Your task to perform on an android device: Show me the alarms in the clock app Image 0: 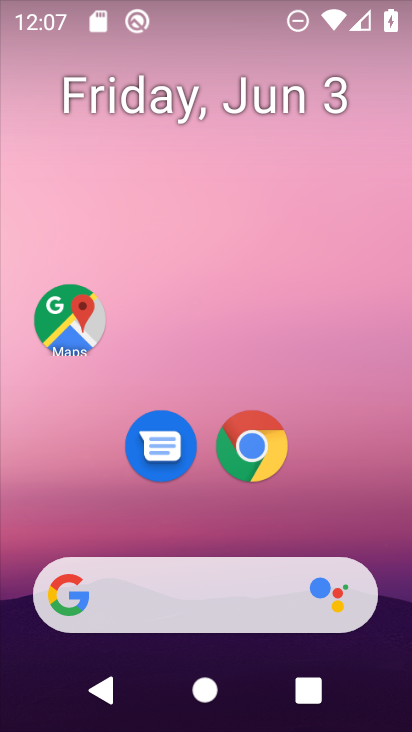
Step 0: click (309, 220)
Your task to perform on an android device: Show me the alarms in the clock app Image 1: 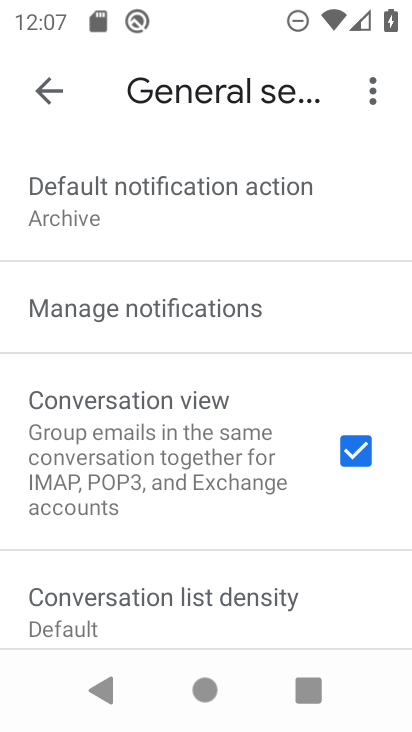
Step 1: click (36, 78)
Your task to perform on an android device: Show me the alarms in the clock app Image 2: 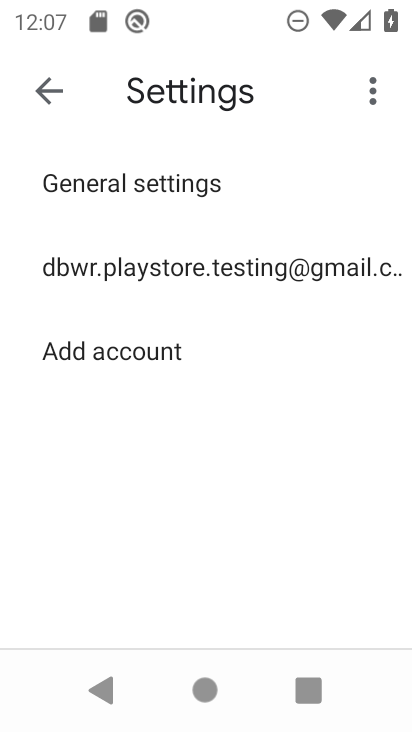
Step 2: click (51, 93)
Your task to perform on an android device: Show me the alarms in the clock app Image 3: 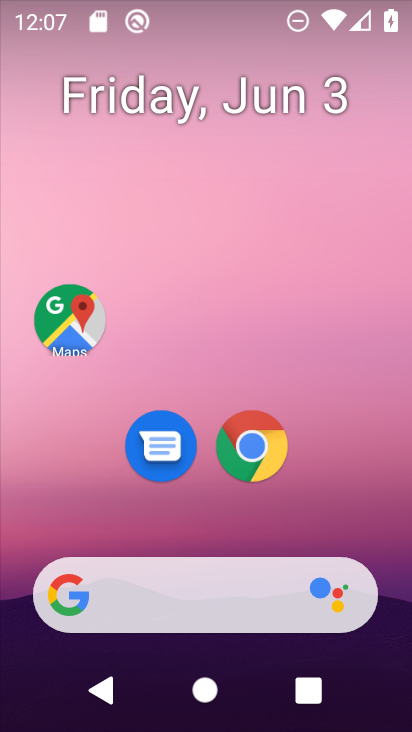
Step 3: drag from (274, 540) to (298, 106)
Your task to perform on an android device: Show me the alarms in the clock app Image 4: 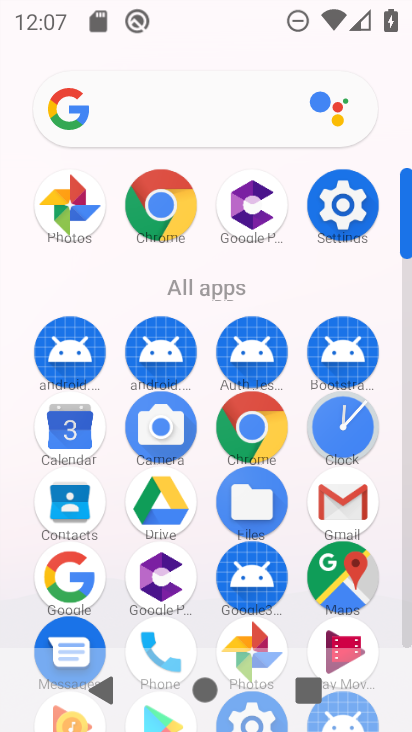
Step 4: click (353, 425)
Your task to perform on an android device: Show me the alarms in the clock app Image 5: 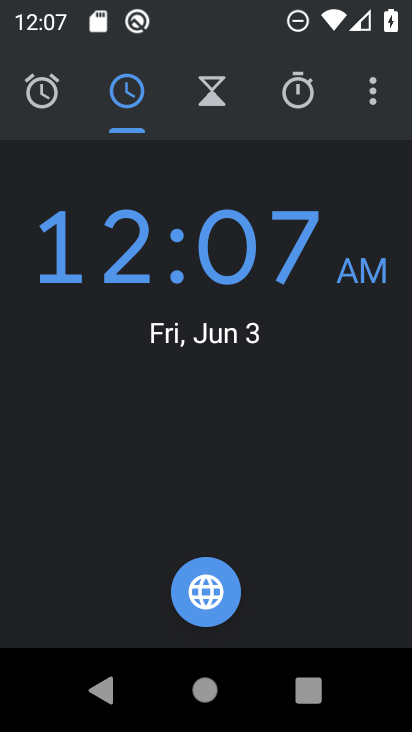
Step 5: click (55, 90)
Your task to perform on an android device: Show me the alarms in the clock app Image 6: 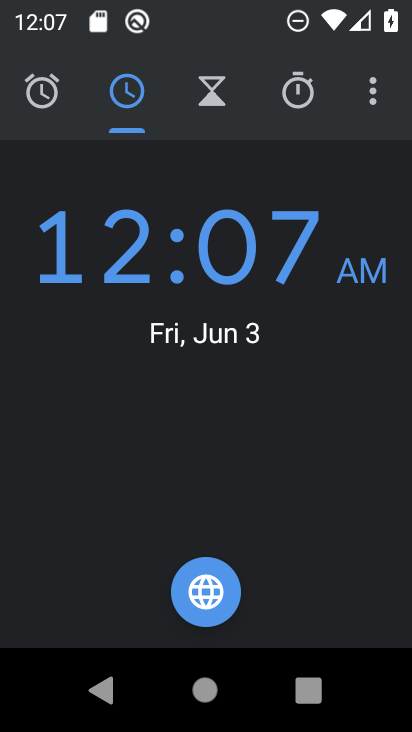
Step 6: click (37, 95)
Your task to perform on an android device: Show me the alarms in the clock app Image 7: 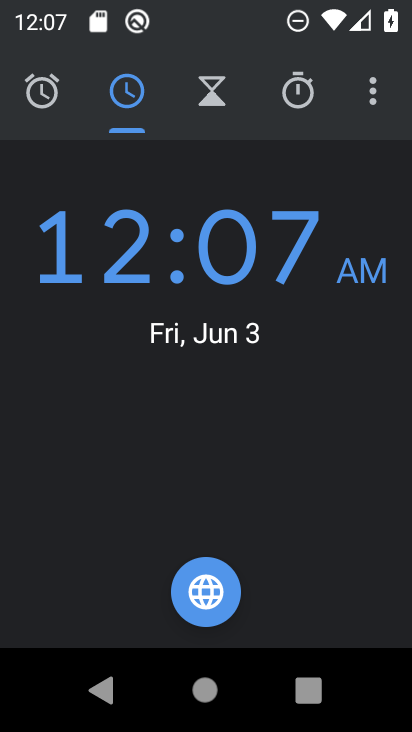
Step 7: click (38, 100)
Your task to perform on an android device: Show me the alarms in the clock app Image 8: 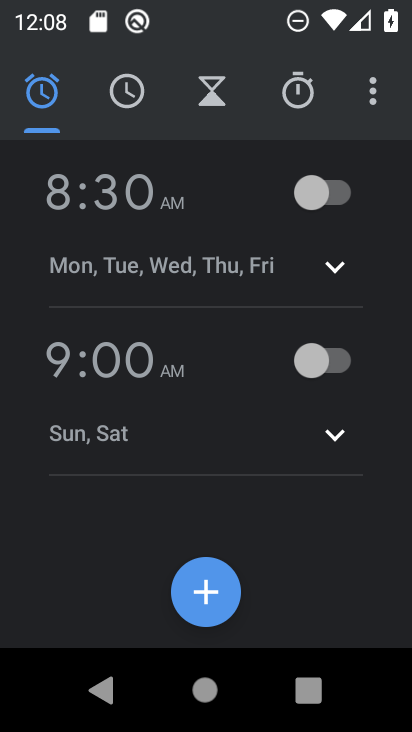
Step 8: task complete